Your task to perform on an android device: allow notifications from all sites in the chrome app Image 0: 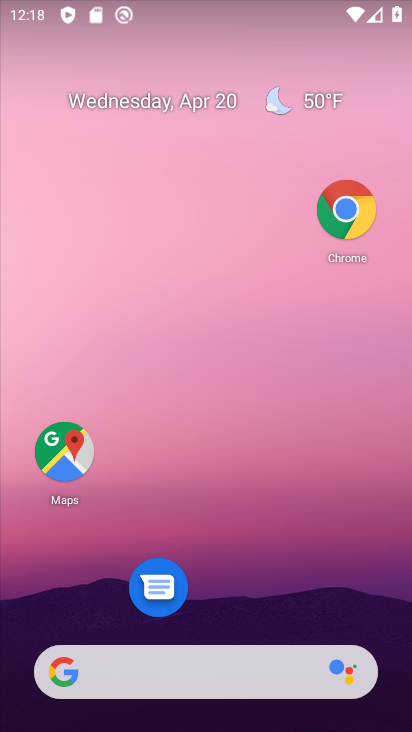
Step 0: click (352, 210)
Your task to perform on an android device: allow notifications from all sites in the chrome app Image 1: 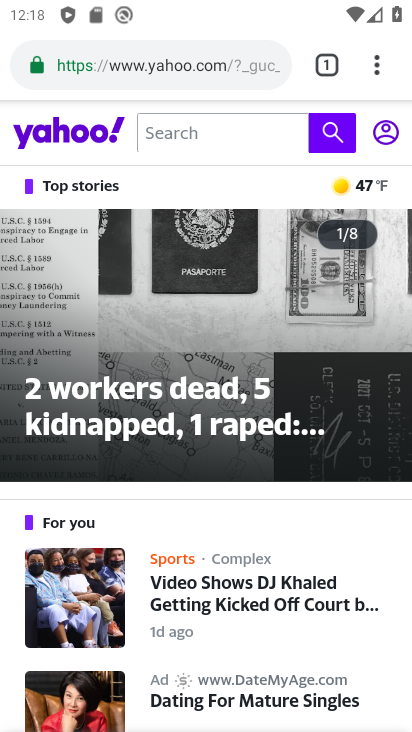
Step 1: click (373, 74)
Your task to perform on an android device: allow notifications from all sites in the chrome app Image 2: 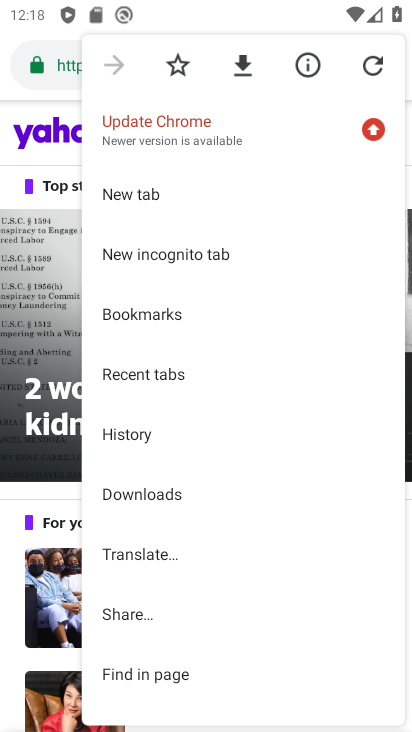
Step 2: drag from (132, 632) to (207, 249)
Your task to perform on an android device: allow notifications from all sites in the chrome app Image 3: 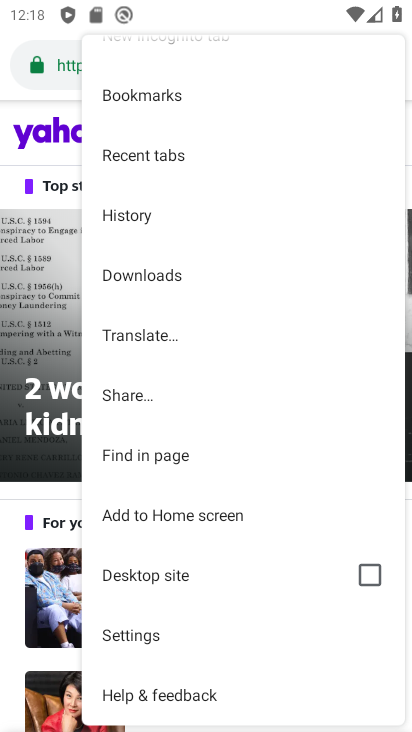
Step 3: click (147, 631)
Your task to perform on an android device: allow notifications from all sites in the chrome app Image 4: 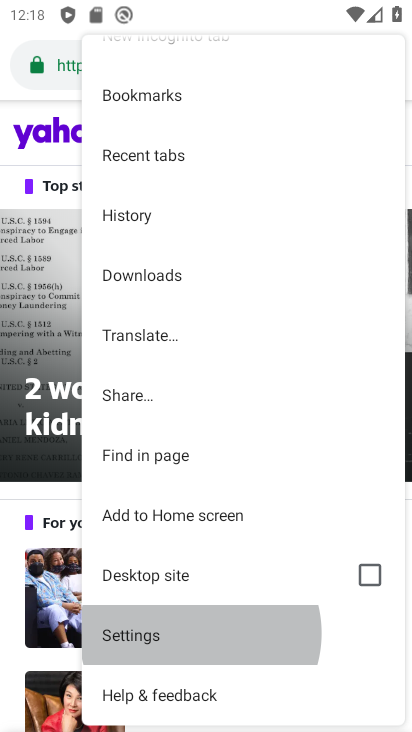
Step 4: click (147, 631)
Your task to perform on an android device: allow notifications from all sites in the chrome app Image 5: 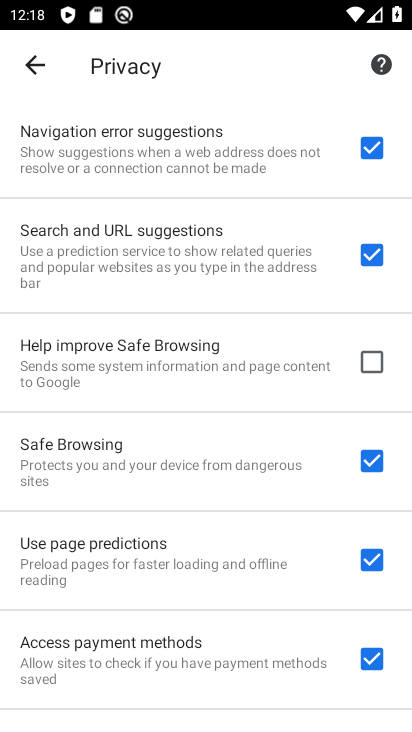
Step 5: click (29, 59)
Your task to perform on an android device: allow notifications from all sites in the chrome app Image 6: 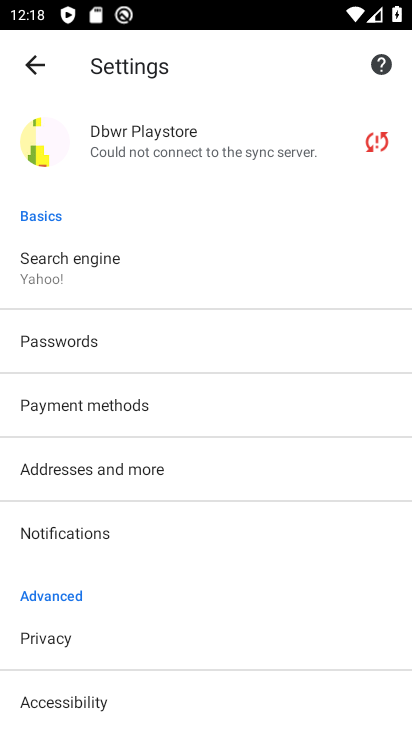
Step 6: drag from (117, 535) to (160, 220)
Your task to perform on an android device: allow notifications from all sites in the chrome app Image 7: 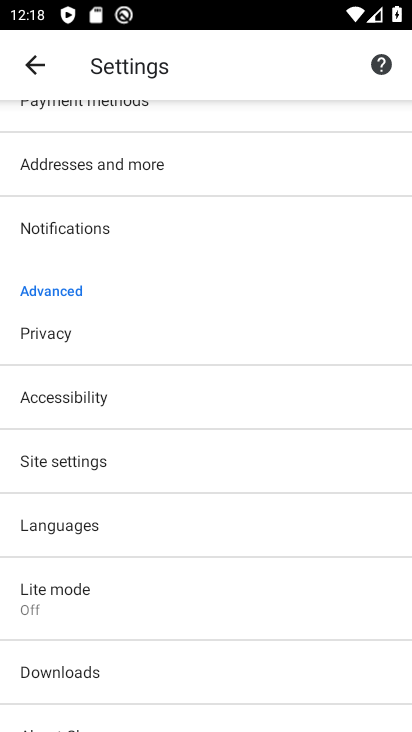
Step 7: click (77, 229)
Your task to perform on an android device: allow notifications from all sites in the chrome app Image 8: 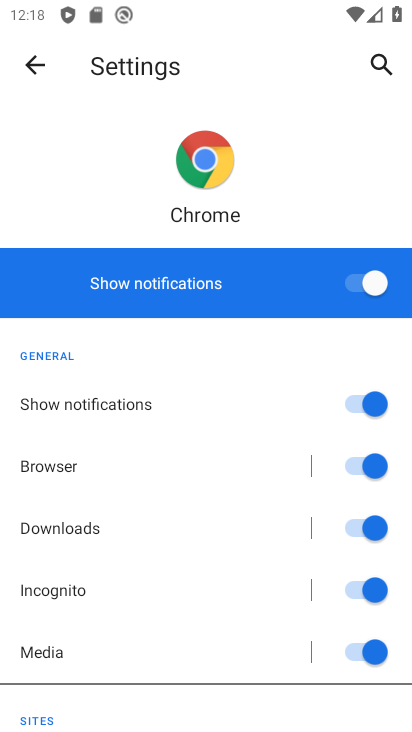
Step 8: click (369, 286)
Your task to perform on an android device: allow notifications from all sites in the chrome app Image 9: 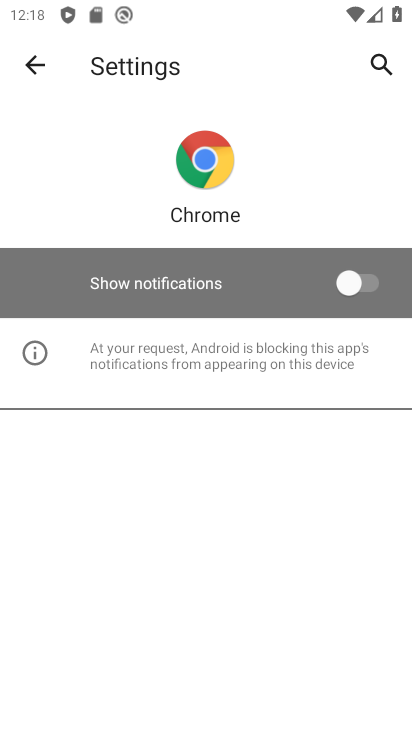
Step 9: task complete